Your task to perform on an android device: Do I have any events this weekend? Image 0: 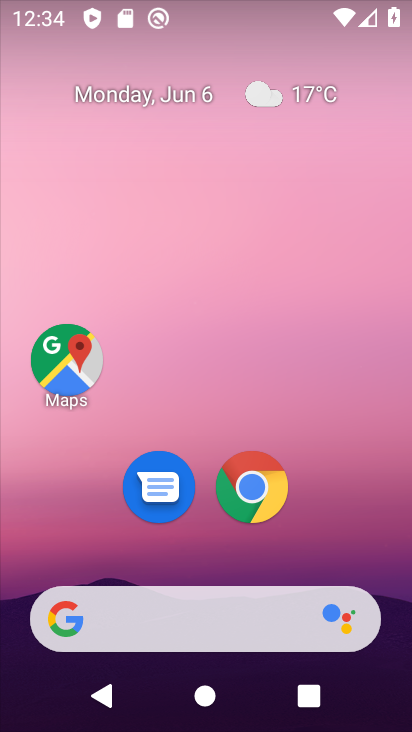
Step 0: drag from (222, 404) to (219, 47)
Your task to perform on an android device: Do I have any events this weekend? Image 1: 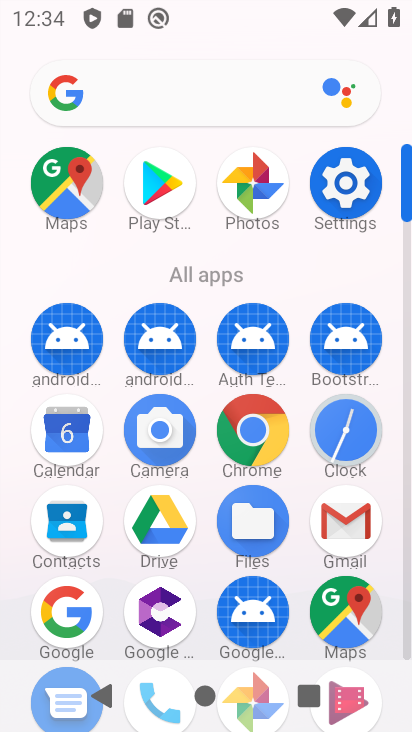
Step 1: click (60, 439)
Your task to perform on an android device: Do I have any events this weekend? Image 2: 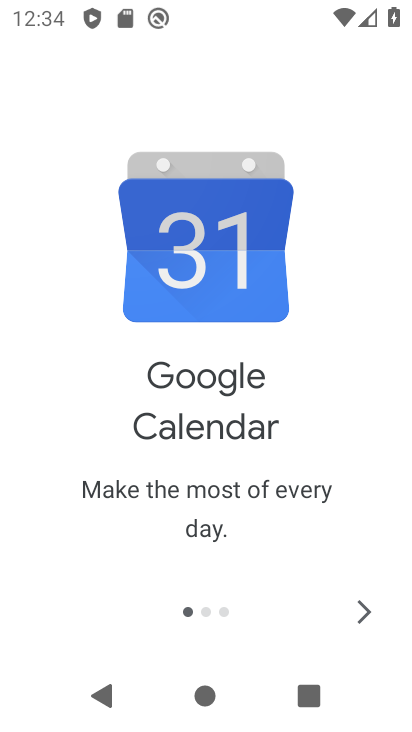
Step 2: click (349, 600)
Your task to perform on an android device: Do I have any events this weekend? Image 3: 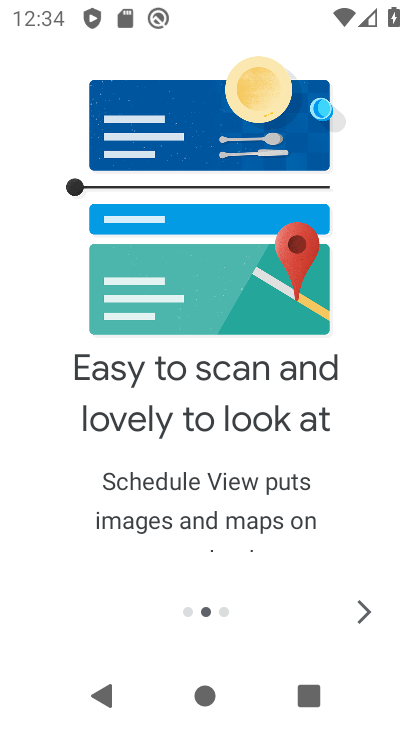
Step 3: click (349, 600)
Your task to perform on an android device: Do I have any events this weekend? Image 4: 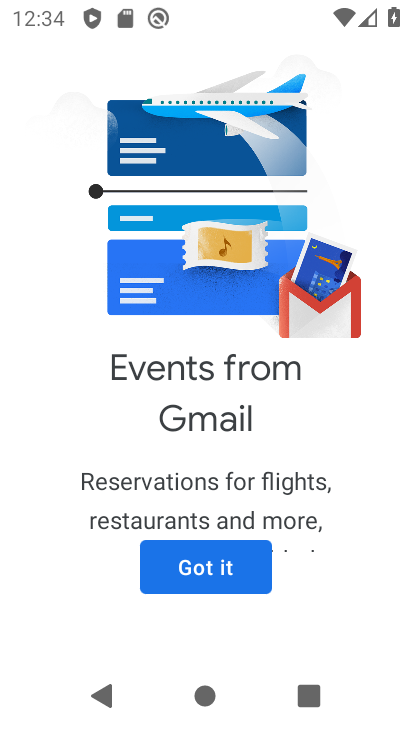
Step 4: click (217, 570)
Your task to perform on an android device: Do I have any events this weekend? Image 5: 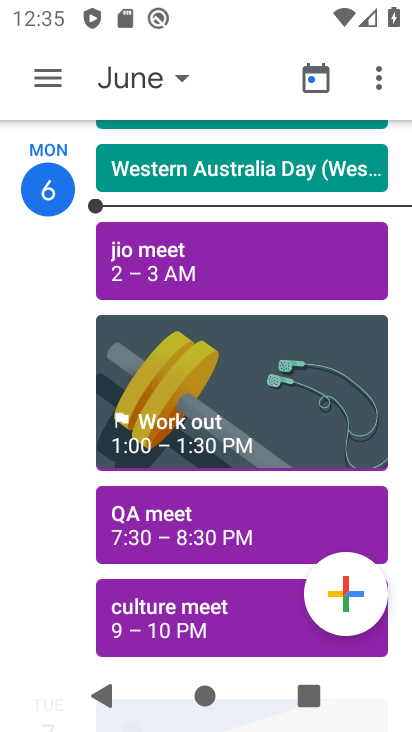
Step 5: drag from (203, 568) to (277, 140)
Your task to perform on an android device: Do I have any events this weekend? Image 6: 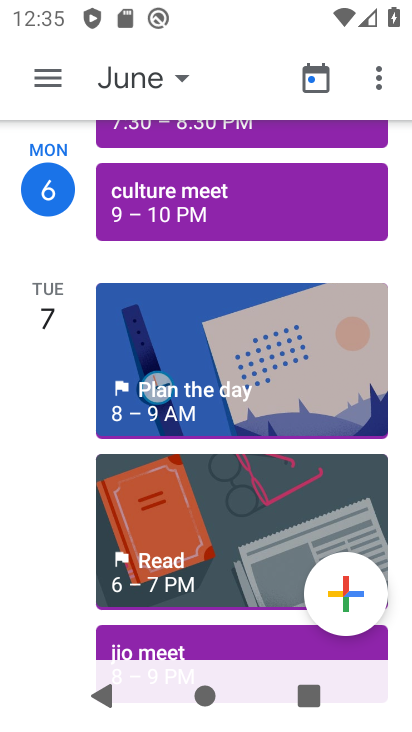
Step 6: drag from (133, 607) to (164, 227)
Your task to perform on an android device: Do I have any events this weekend? Image 7: 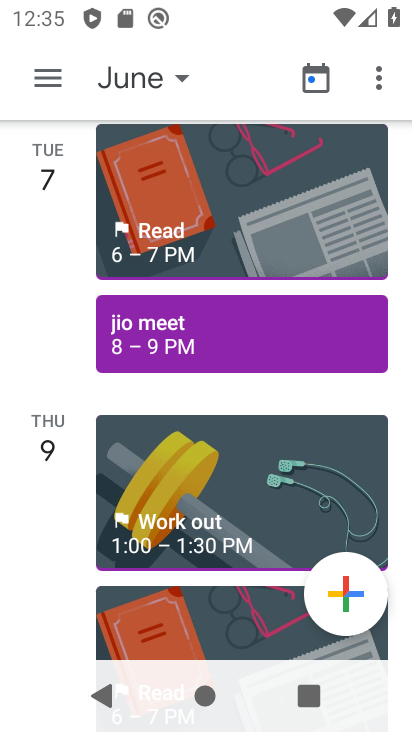
Step 7: drag from (180, 568) to (304, 67)
Your task to perform on an android device: Do I have any events this weekend? Image 8: 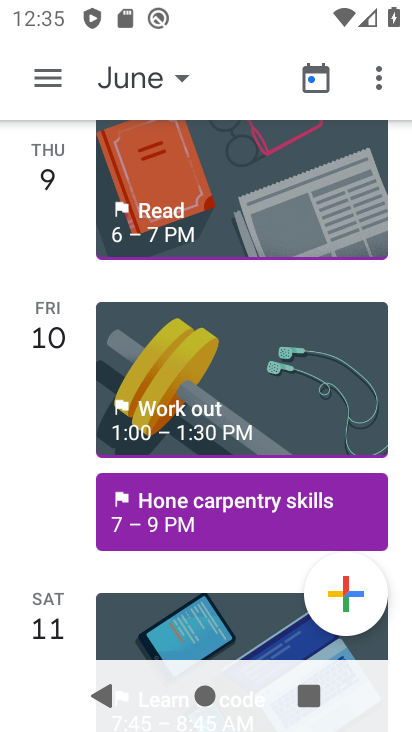
Step 8: drag from (235, 532) to (298, 110)
Your task to perform on an android device: Do I have any events this weekend? Image 9: 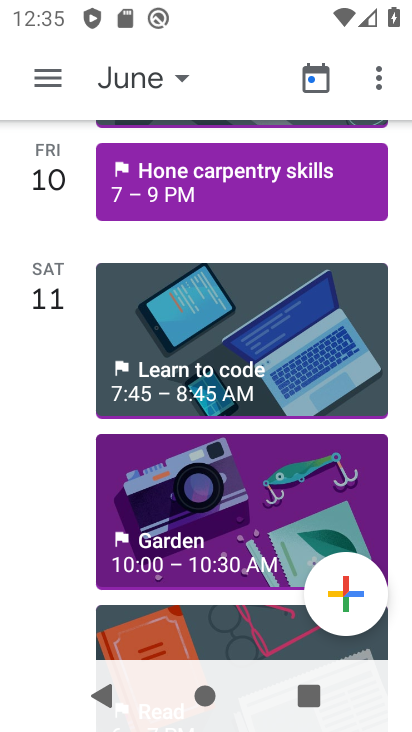
Step 9: drag from (206, 553) to (279, 261)
Your task to perform on an android device: Do I have any events this weekend? Image 10: 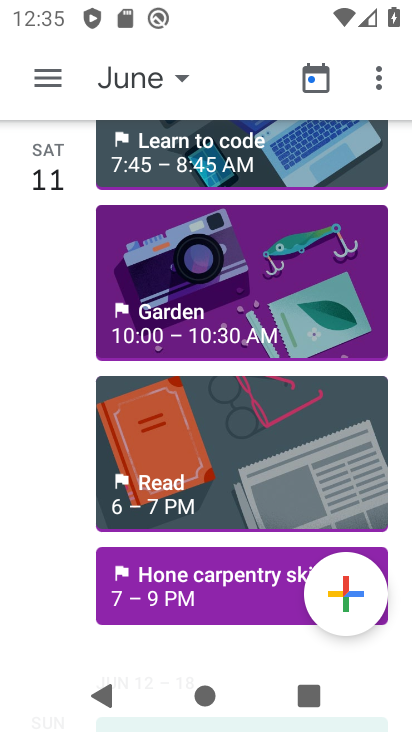
Step 10: click (211, 279)
Your task to perform on an android device: Do I have any events this weekend? Image 11: 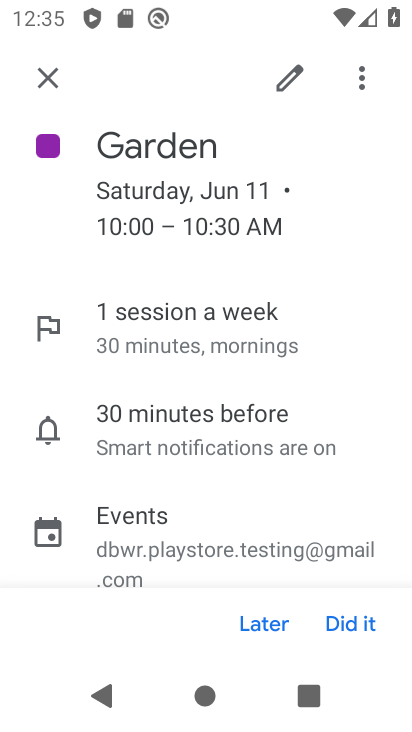
Step 11: task complete